Your task to perform on an android device: Go to internet settings Image 0: 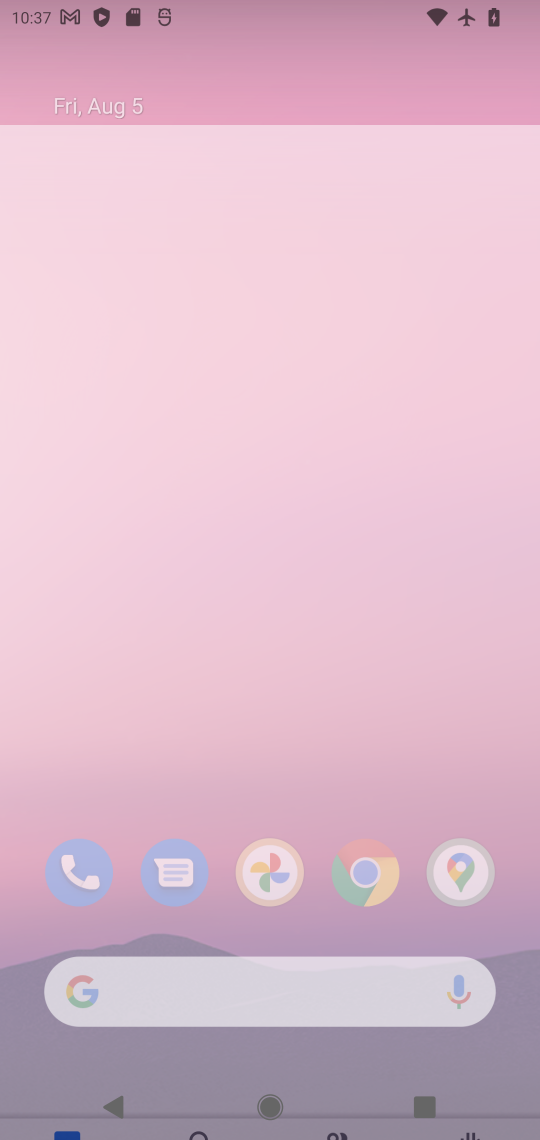
Step 0: press home button
Your task to perform on an android device: Go to internet settings Image 1: 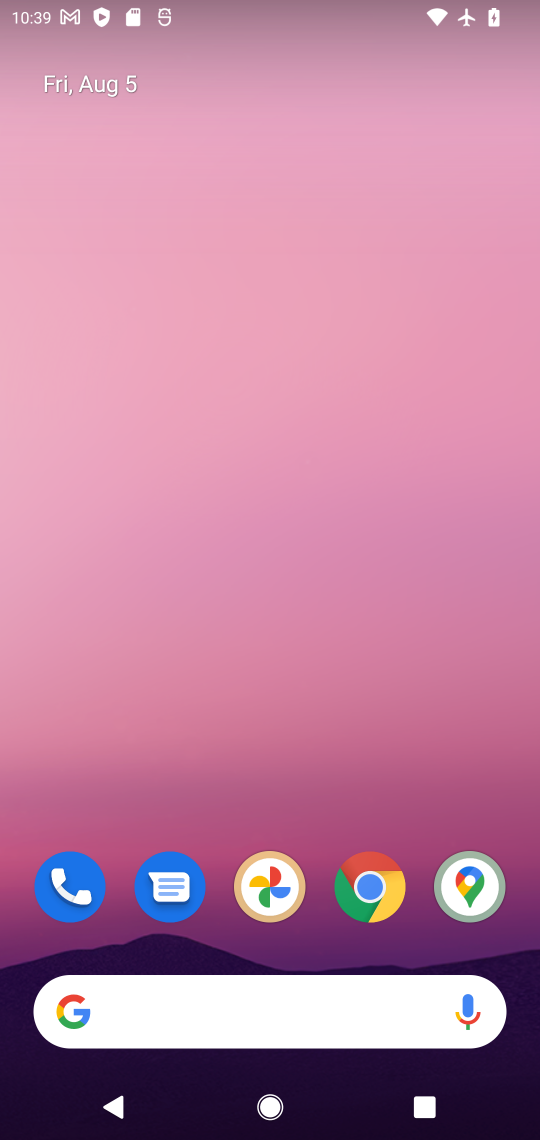
Step 1: drag from (330, 911) to (257, 43)
Your task to perform on an android device: Go to internet settings Image 2: 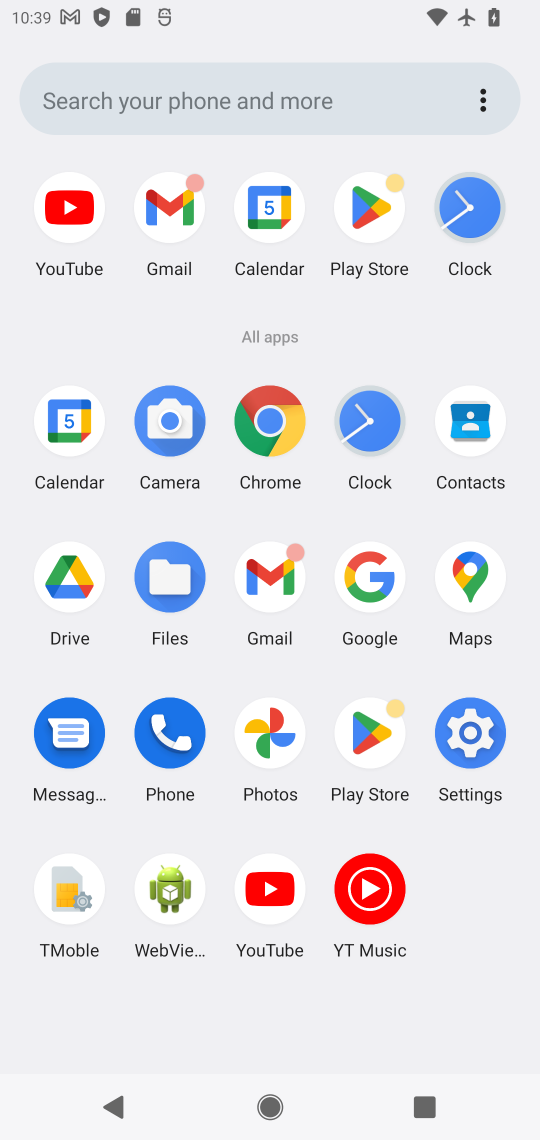
Step 2: click (469, 729)
Your task to perform on an android device: Go to internet settings Image 3: 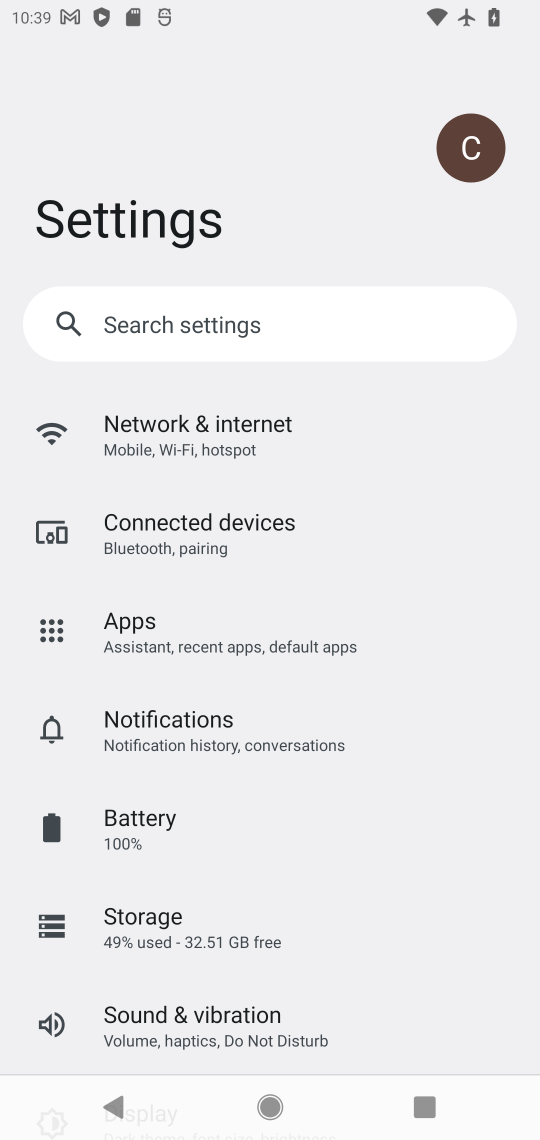
Step 3: click (206, 443)
Your task to perform on an android device: Go to internet settings Image 4: 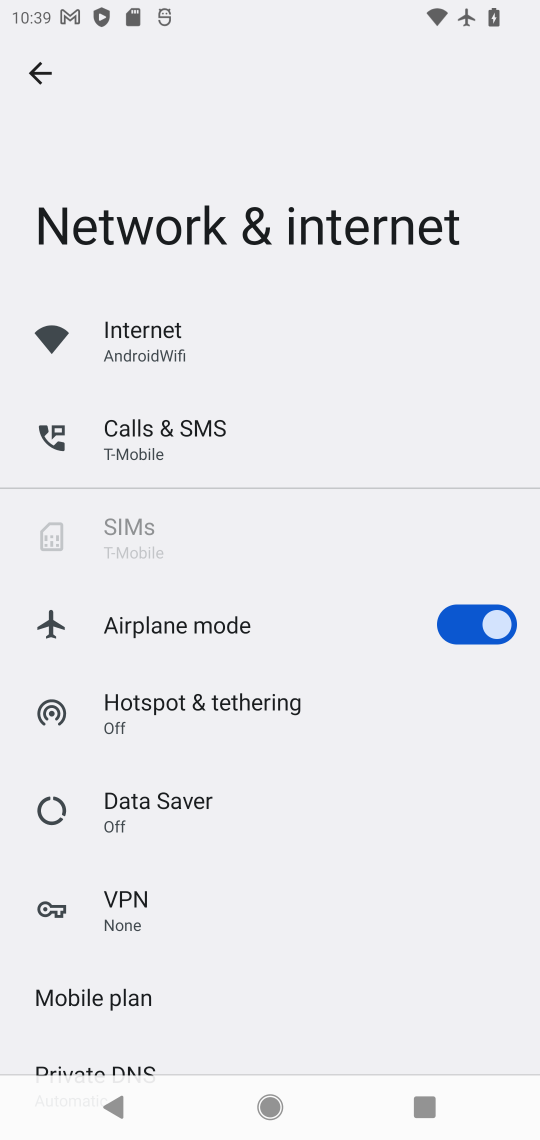
Step 4: task complete